Your task to perform on an android device: toggle airplane mode Image 0: 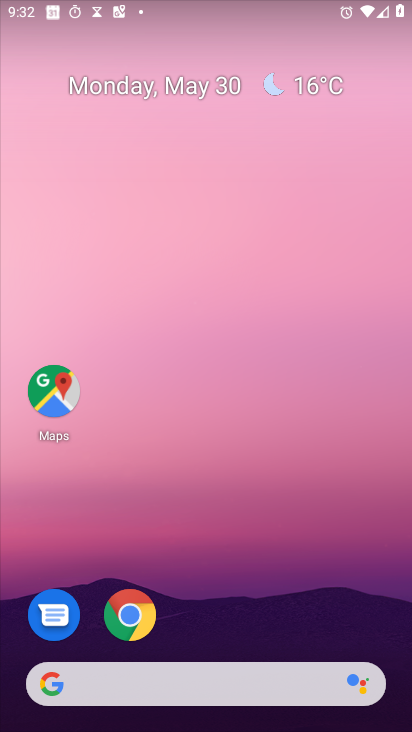
Step 0: drag from (316, 527) to (321, 39)
Your task to perform on an android device: toggle airplane mode Image 1: 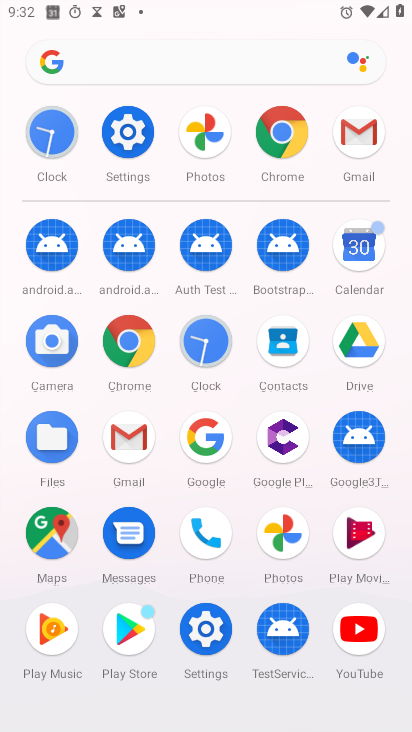
Step 1: click (143, 135)
Your task to perform on an android device: toggle airplane mode Image 2: 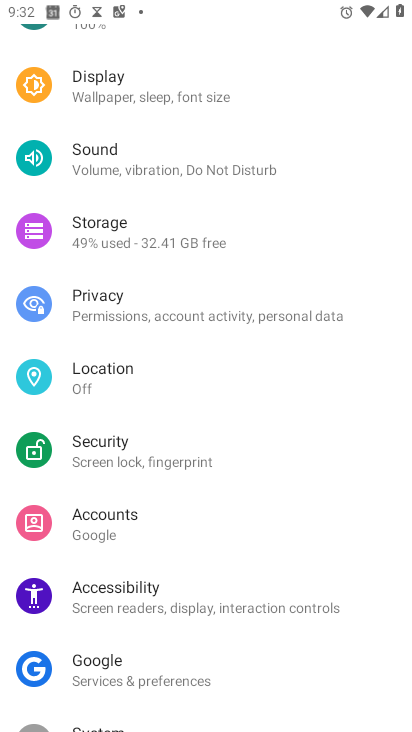
Step 2: drag from (207, 207) to (245, 602)
Your task to perform on an android device: toggle airplane mode Image 3: 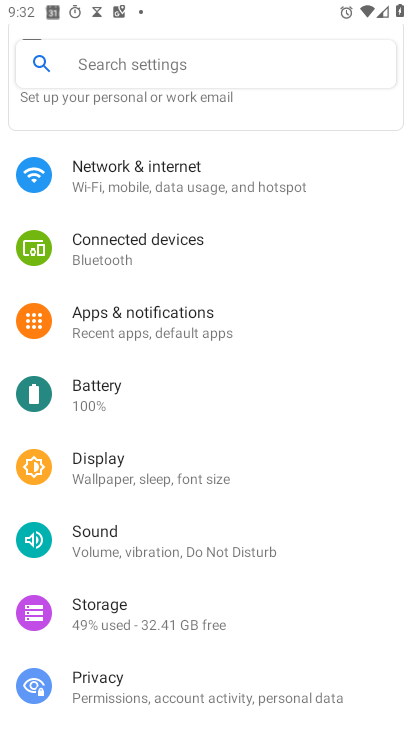
Step 3: drag from (208, 223) to (305, 636)
Your task to perform on an android device: toggle airplane mode Image 4: 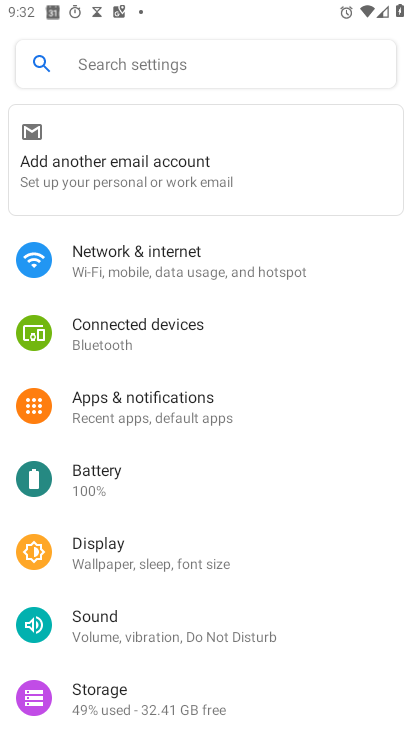
Step 4: click (102, 261)
Your task to perform on an android device: toggle airplane mode Image 5: 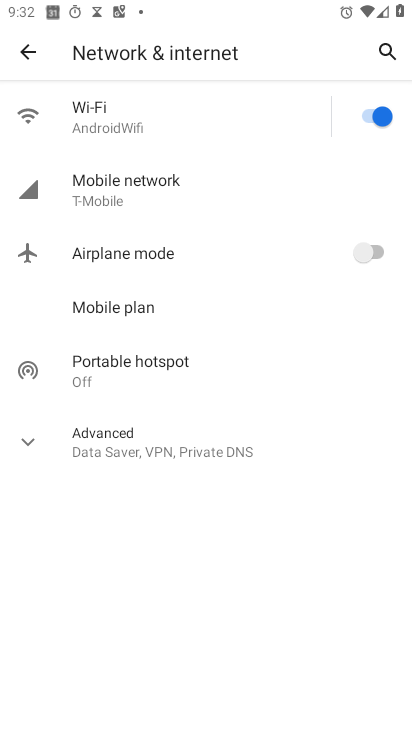
Step 5: click (368, 261)
Your task to perform on an android device: toggle airplane mode Image 6: 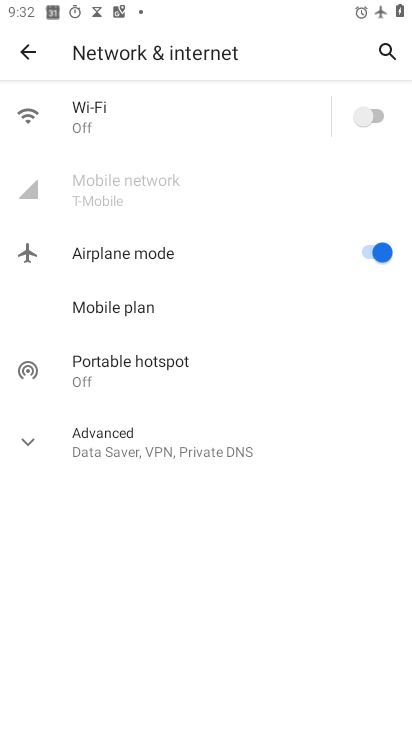
Step 6: task complete